Your task to perform on an android device: Open privacy settings Image 0: 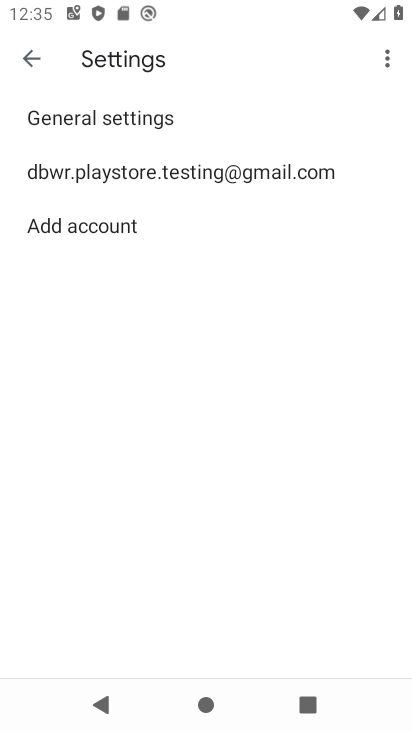
Step 0: press home button
Your task to perform on an android device: Open privacy settings Image 1: 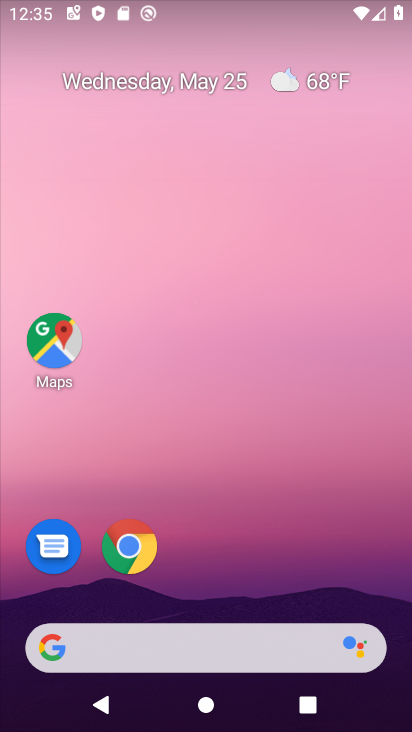
Step 1: drag from (275, 548) to (266, 214)
Your task to perform on an android device: Open privacy settings Image 2: 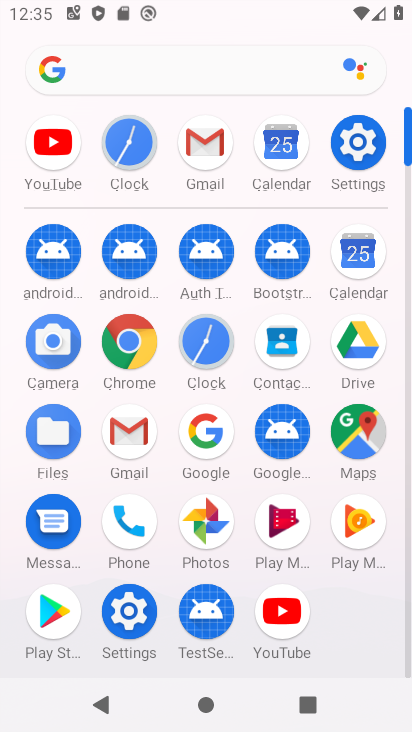
Step 2: click (343, 150)
Your task to perform on an android device: Open privacy settings Image 3: 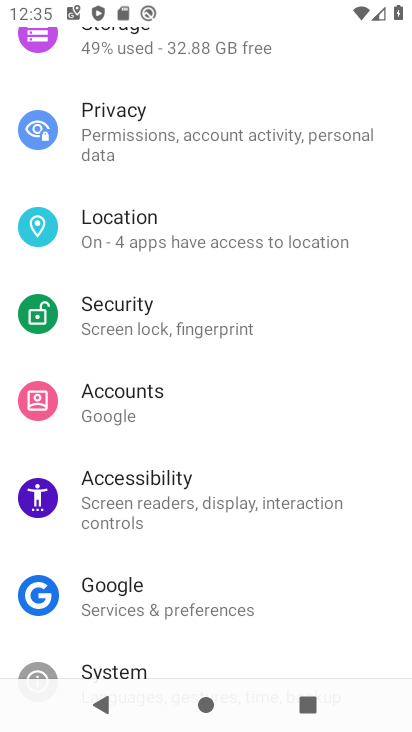
Step 3: click (198, 128)
Your task to perform on an android device: Open privacy settings Image 4: 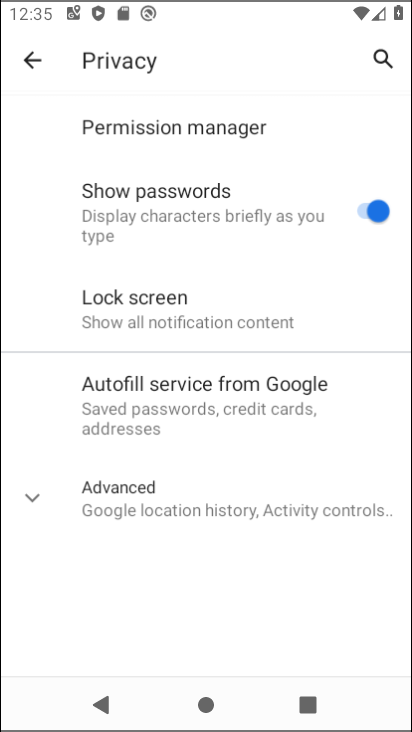
Step 4: task complete